Your task to perform on an android device: View the shopping cart on costco. Add lenovo thinkpad to the cart on costco, then select checkout. Image 0: 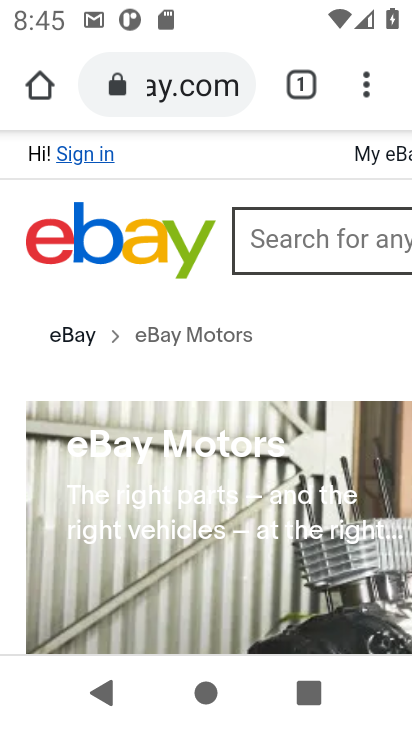
Step 0: task complete